Your task to perform on an android device: Is it going to rain tomorrow? Image 0: 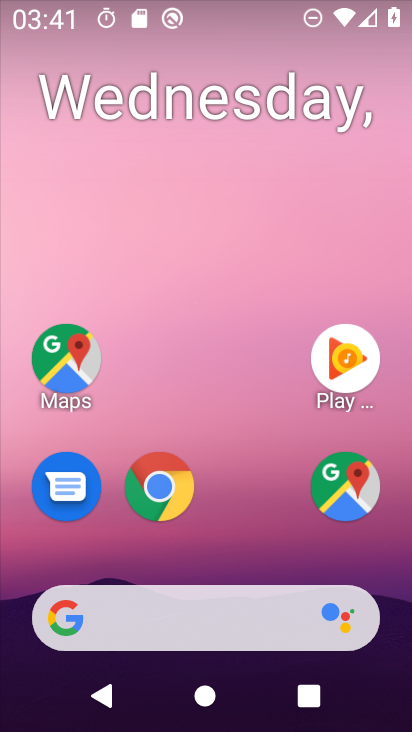
Step 0: press home button
Your task to perform on an android device: Is it going to rain tomorrow? Image 1: 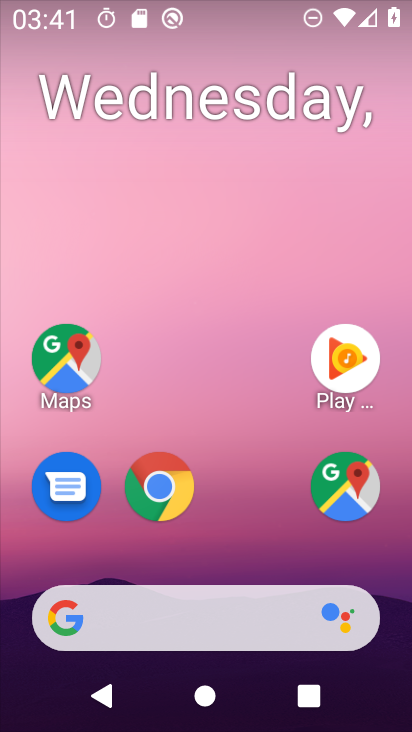
Step 1: click (231, 614)
Your task to perform on an android device: Is it going to rain tomorrow? Image 2: 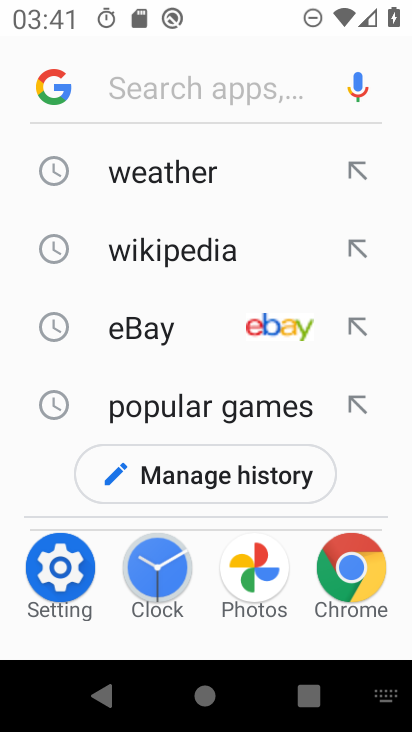
Step 2: click (192, 187)
Your task to perform on an android device: Is it going to rain tomorrow? Image 3: 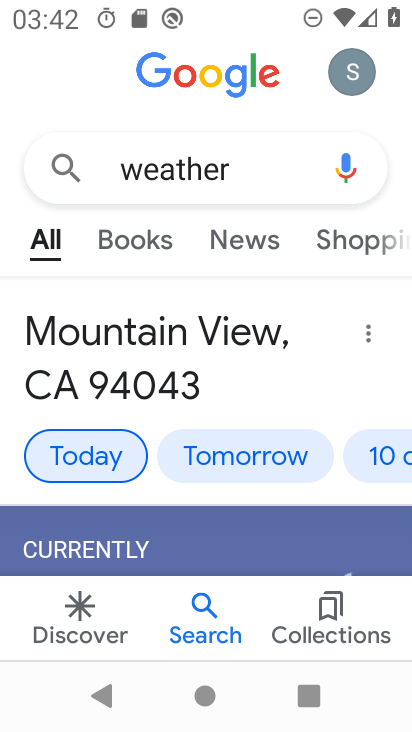
Step 3: click (239, 458)
Your task to perform on an android device: Is it going to rain tomorrow? Image 4: 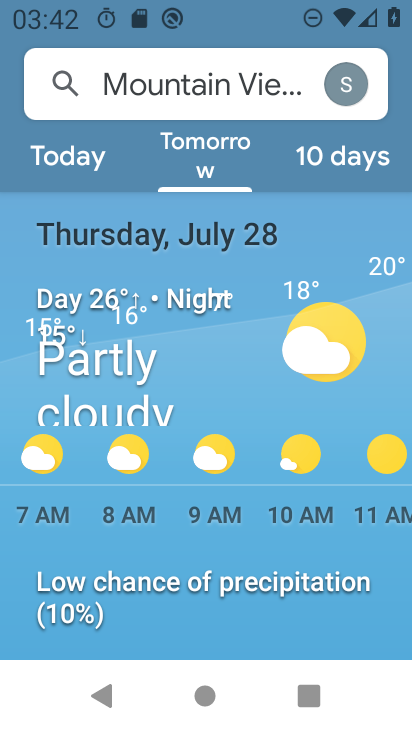
Step 4: task complete